Your task to perform on an android device: Open a new private window in Chrome Image 0: 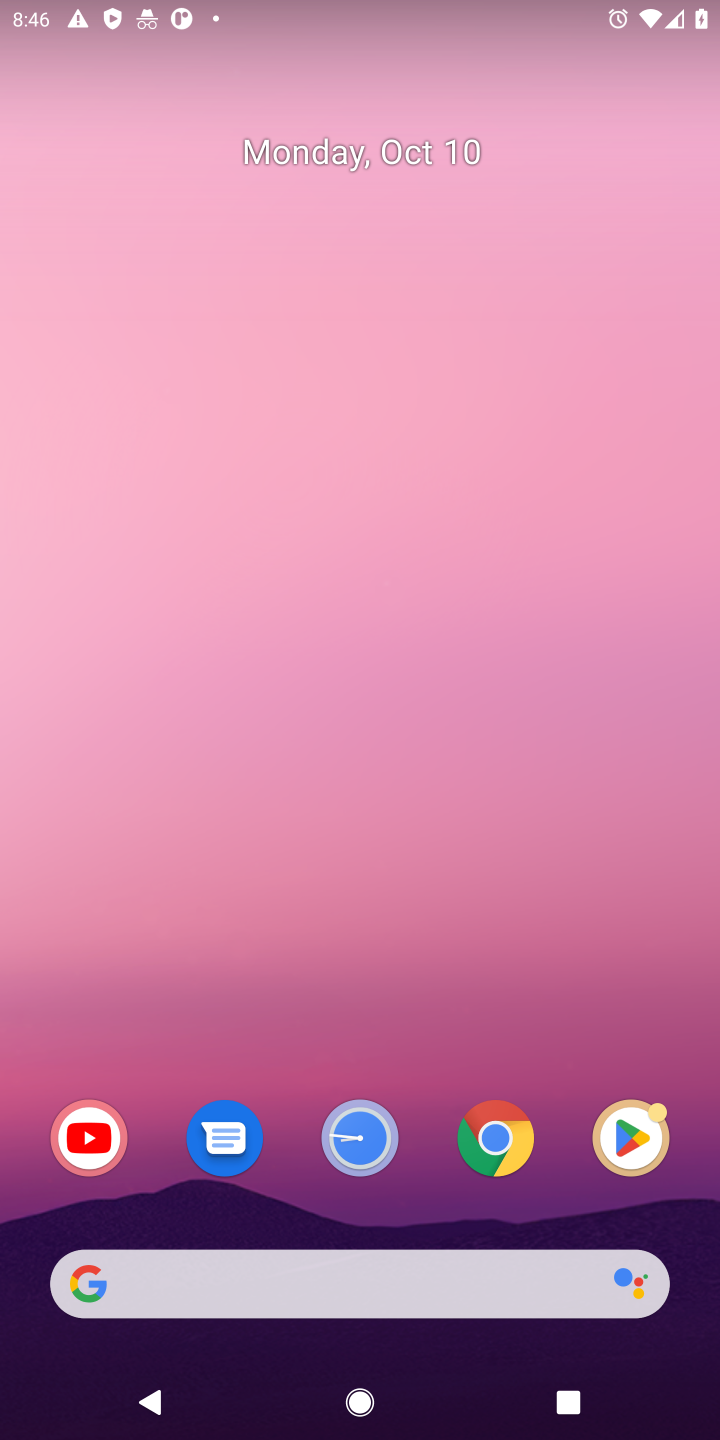
Step 0: click (496, 1135)
Your task to perform on an android device: Open a new private window in Chrome Image 1: 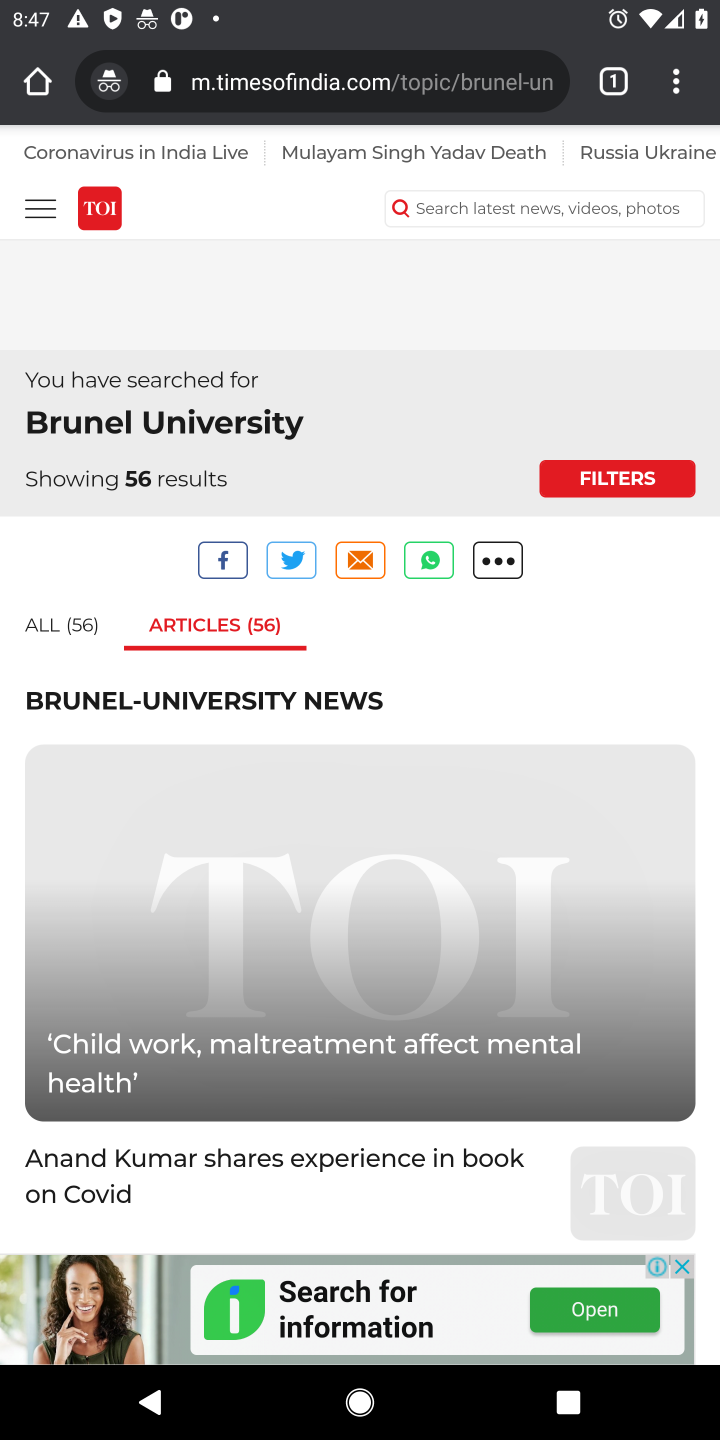
Step 1: click (705, 81)
Your task to perform on an android device: Open a new private window in Chrome Image 2: 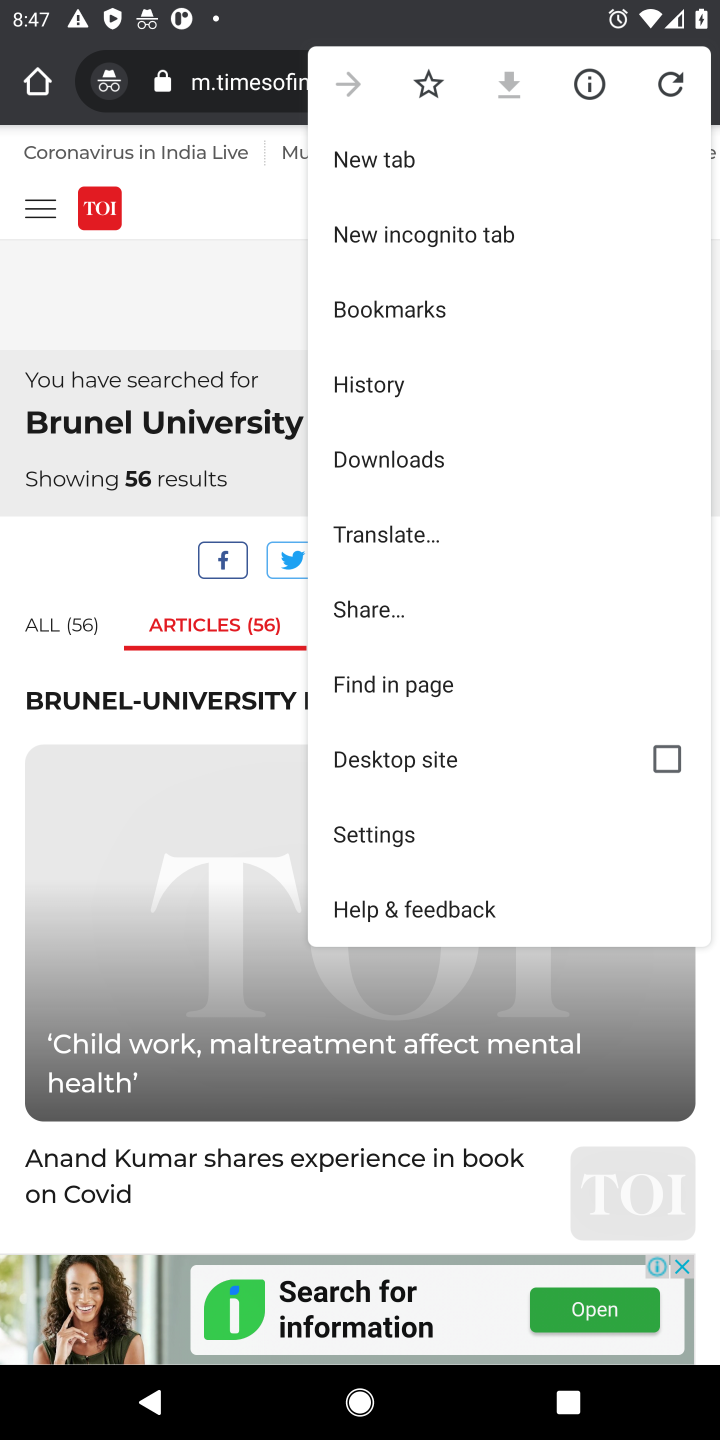
Step 2: click (495, 243)
Your task to perform on an android device: Open a new private window in Chrome Image 3: 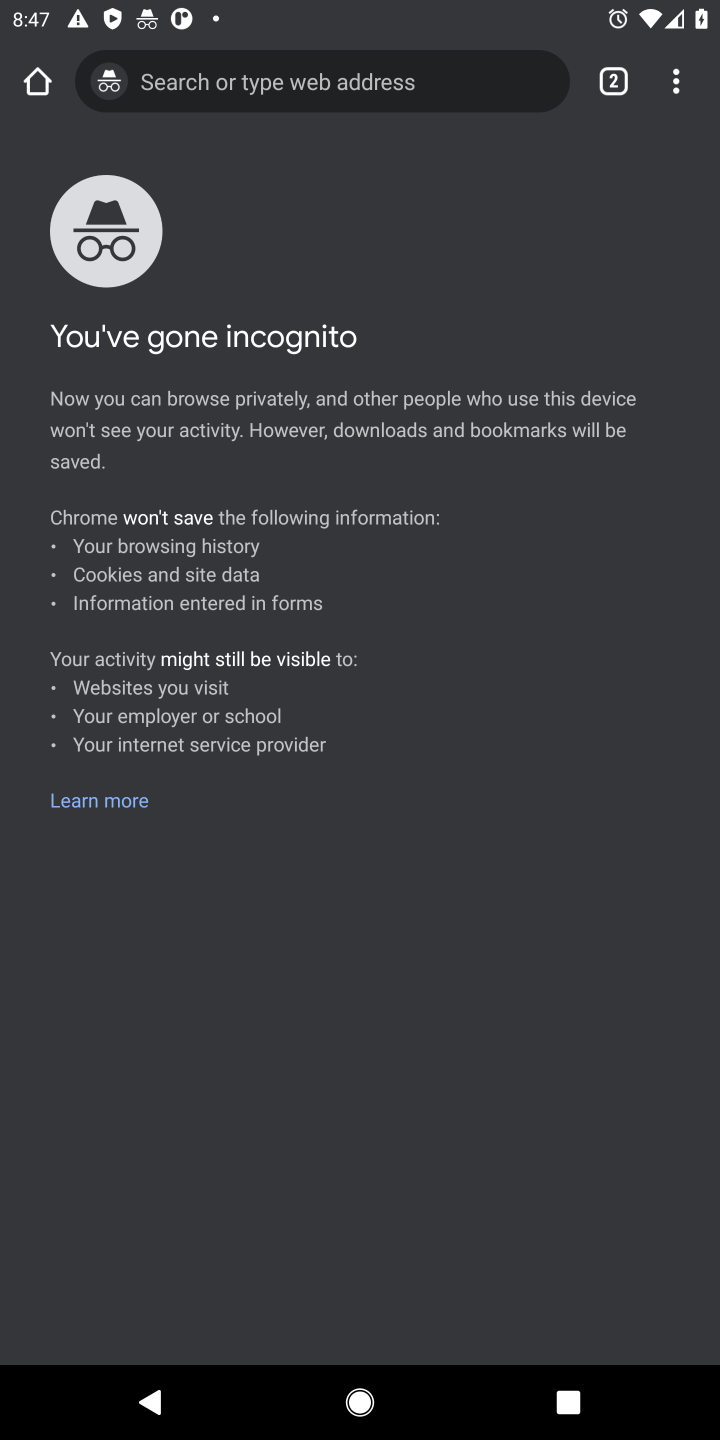
Step 3: task complete